Your task to perform on an android device: find snoozed emails in the gmail app Image 0: 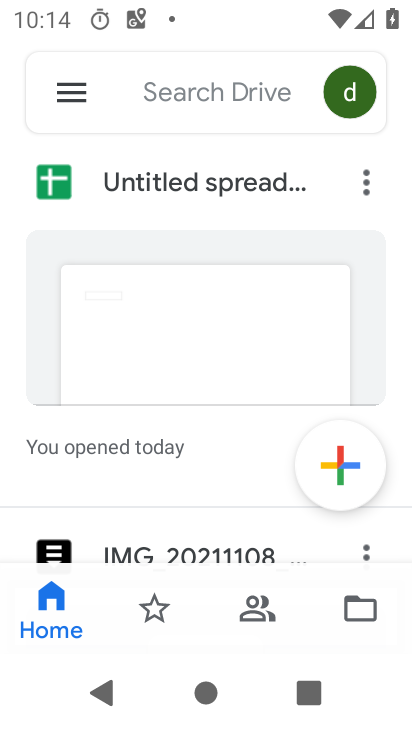
Step 0: press home button
Your task to perform on an android device: find snoozed emails in the gmail app Image 1: 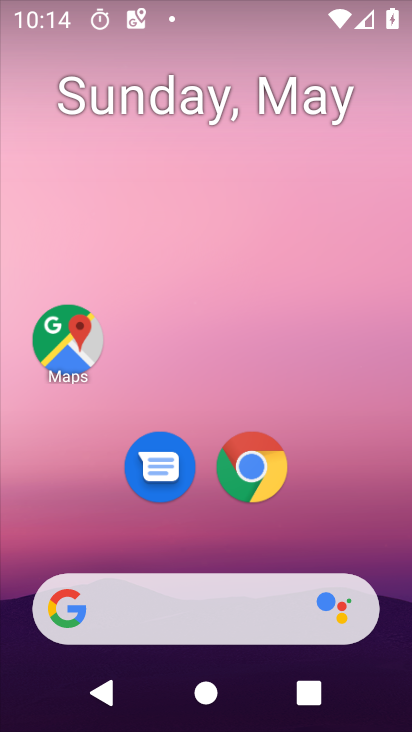
Step 1: drag from (217, 547) to (233, 122)
Your task to perform on an android device: find snoozed emails in the gmail app Image 2: 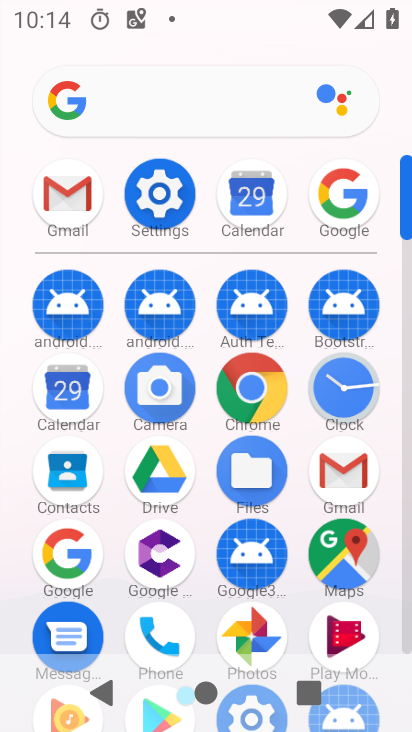
Step 2: click (53, 192)
Your task to perform on an android device: find snoozed emails in the gmail app Image 3: 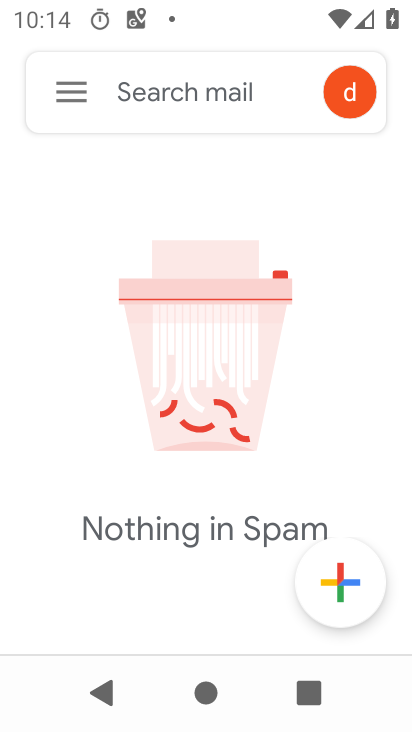
Step 3: click (70, 94)
Your task to perform on an android device: find snoozed emails in the gmail app Image 4: 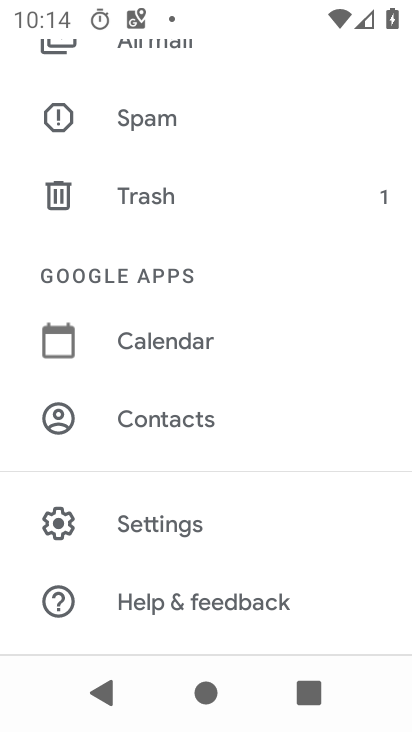
Step 4: drag from (149, 152) to (197, 495)
Your task to perform on an android device: find snoozed emails in the gmail app Image 5: 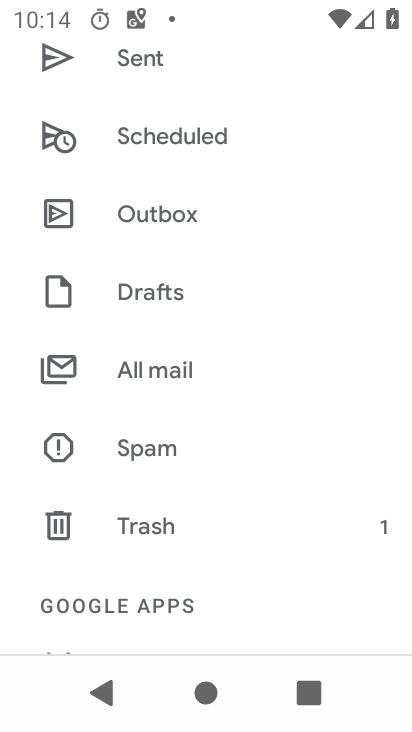
Step 5: drag from (184, 200) to (206, 556)
Your task to perform on an android device: find snoozed emails in the gmail app Image 6: 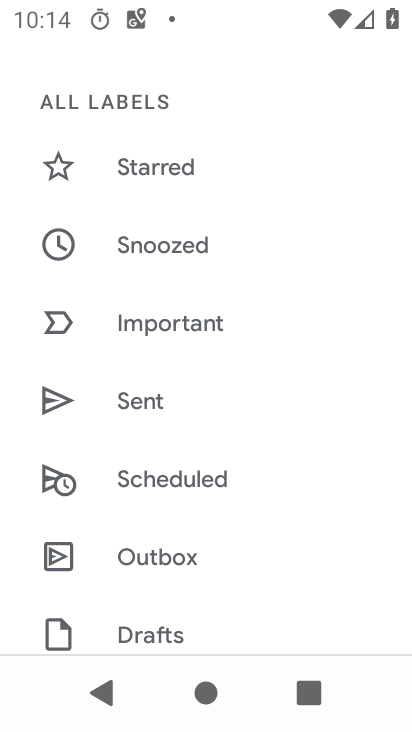
Step 6: click (178, 229)
Your task to perform on an android device: find snoozed emails in the gmail app Image 7: 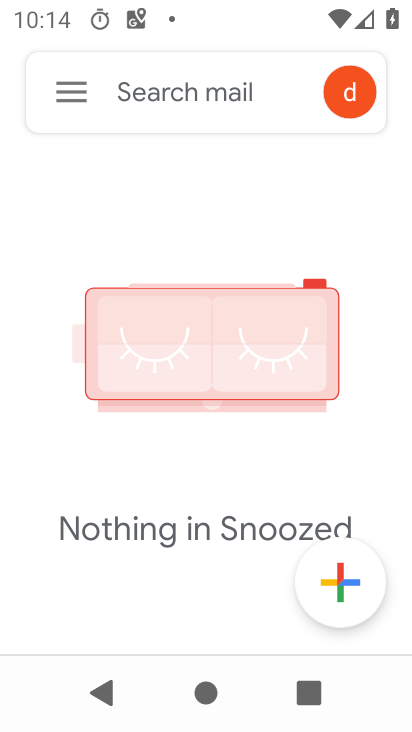
Step 7: task complete